Your task to perform on an android device: uninstall "Google Keep" Image 0: 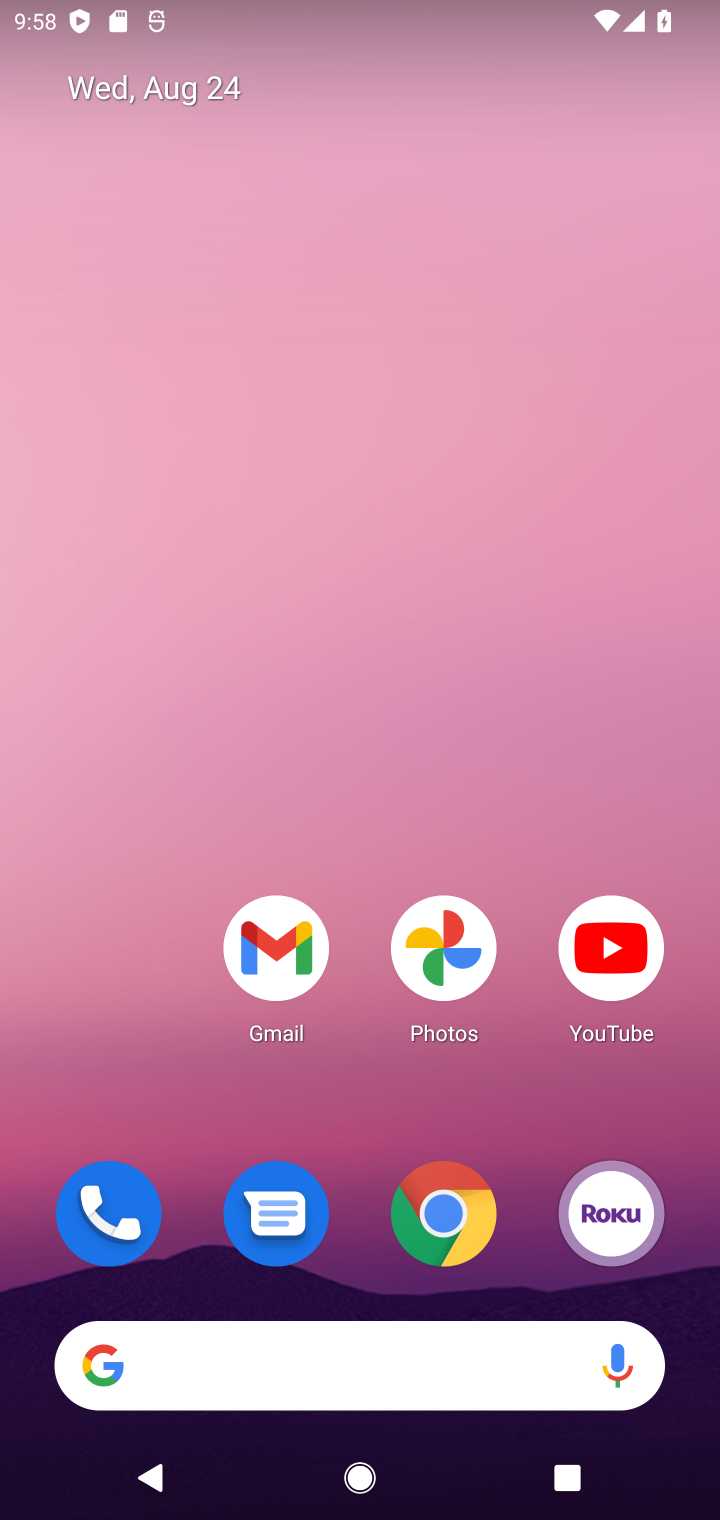
Step 0: drag from (372, 1097) to (316, 24)
Your task to perform on an android device: uninstall "Google Keep" Image 1: 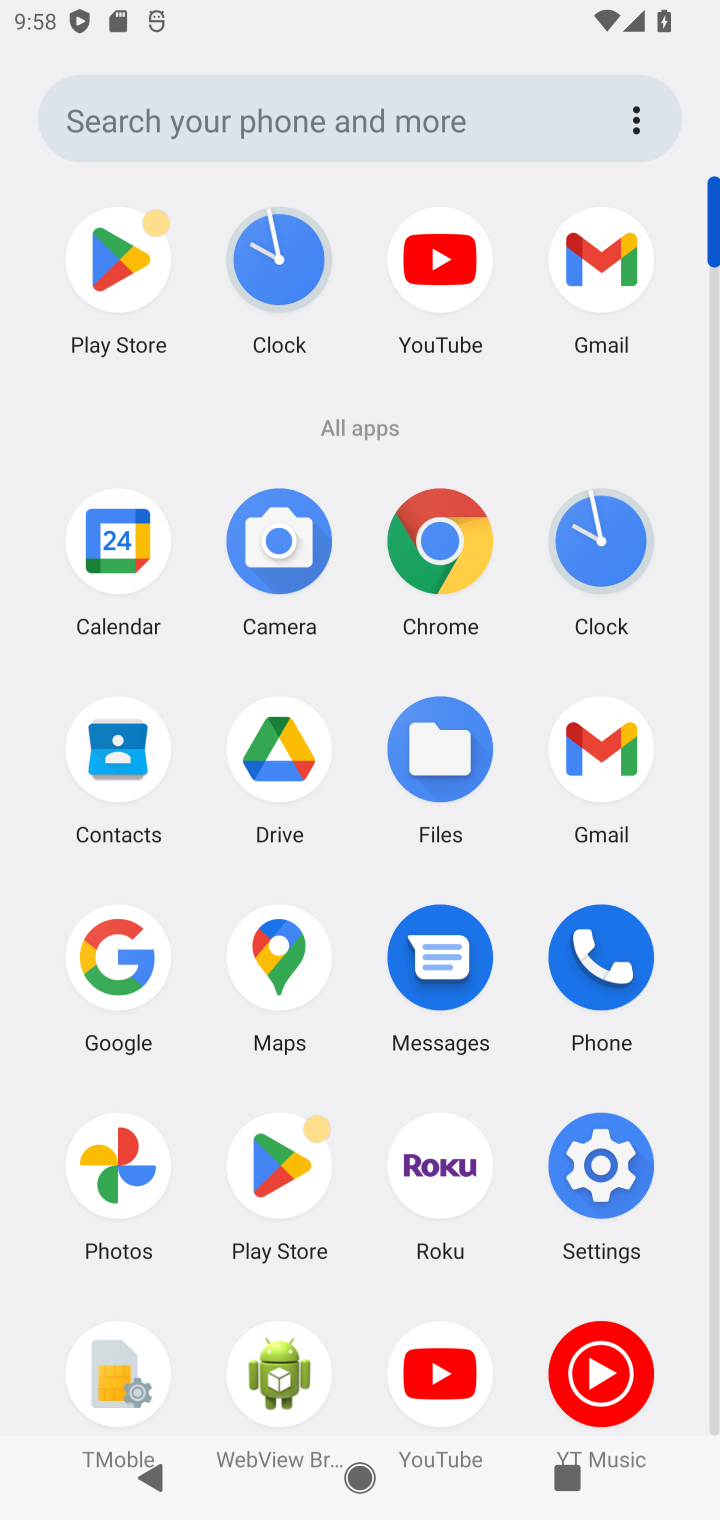
Step 1: click (109, 325)
Your task to perform on an android device: uninstall "Google Keep" Image 2: 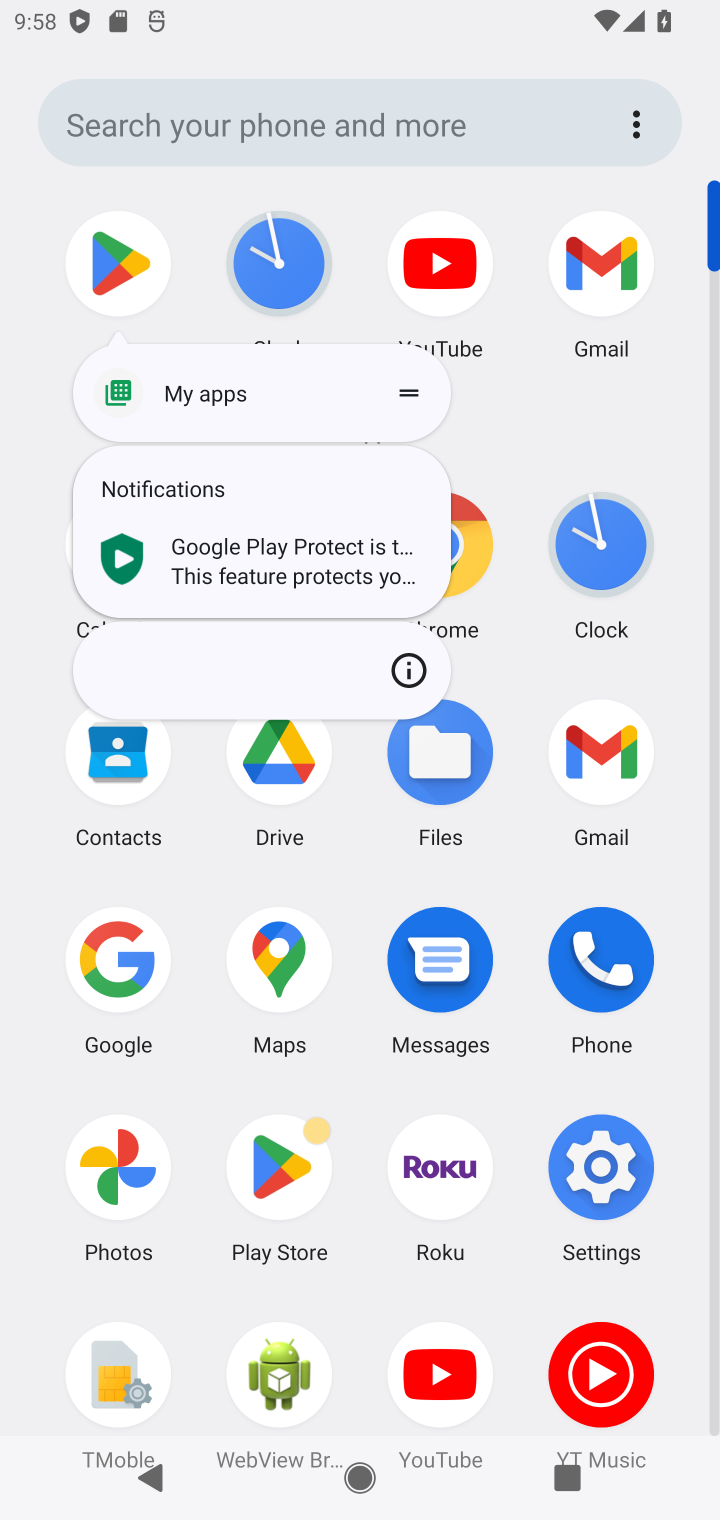
Step 2: click (129, 261)
Your task to perform on an android device: uninstall "Google Keep" Image 3: 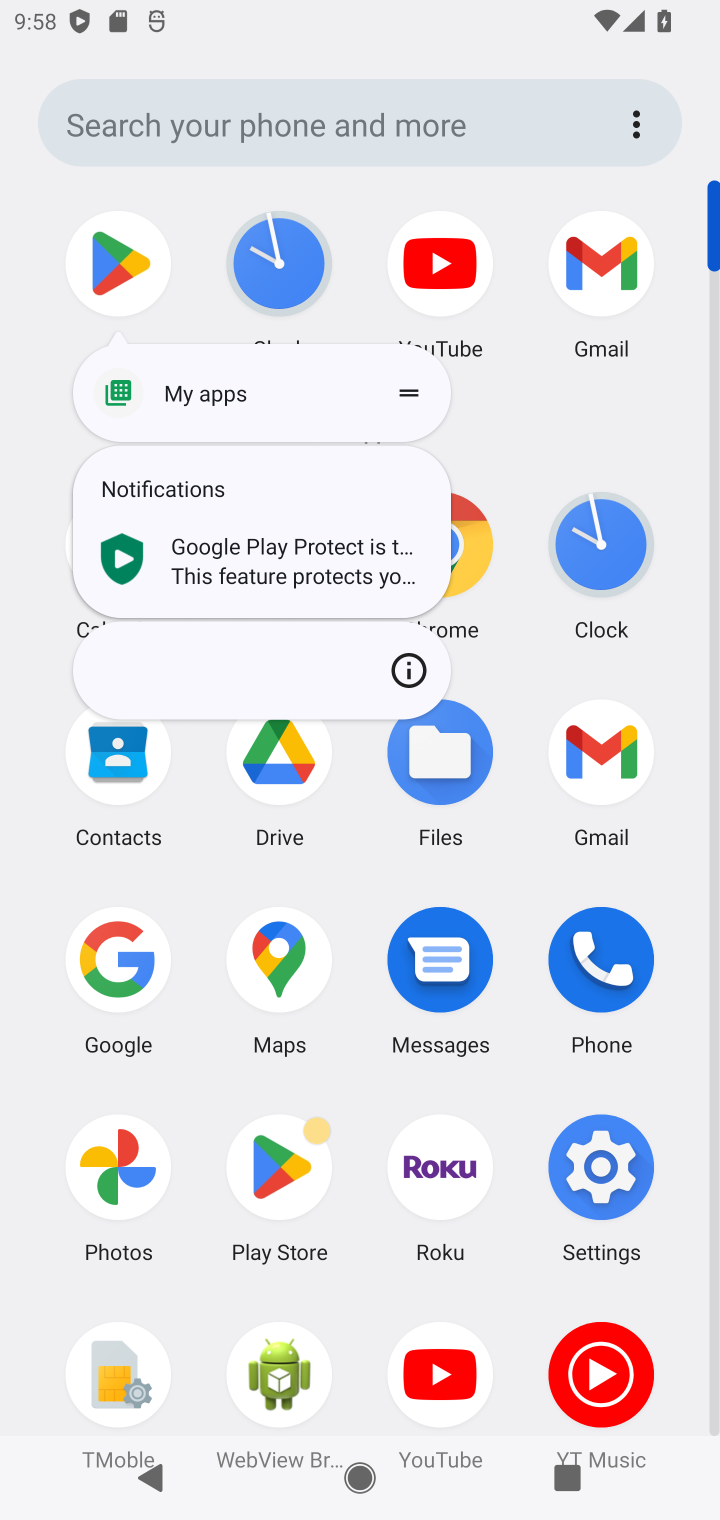
Step 3: click (129, 261)
Your task to perform on an android device: uninstall "Google Keep" Image 4: 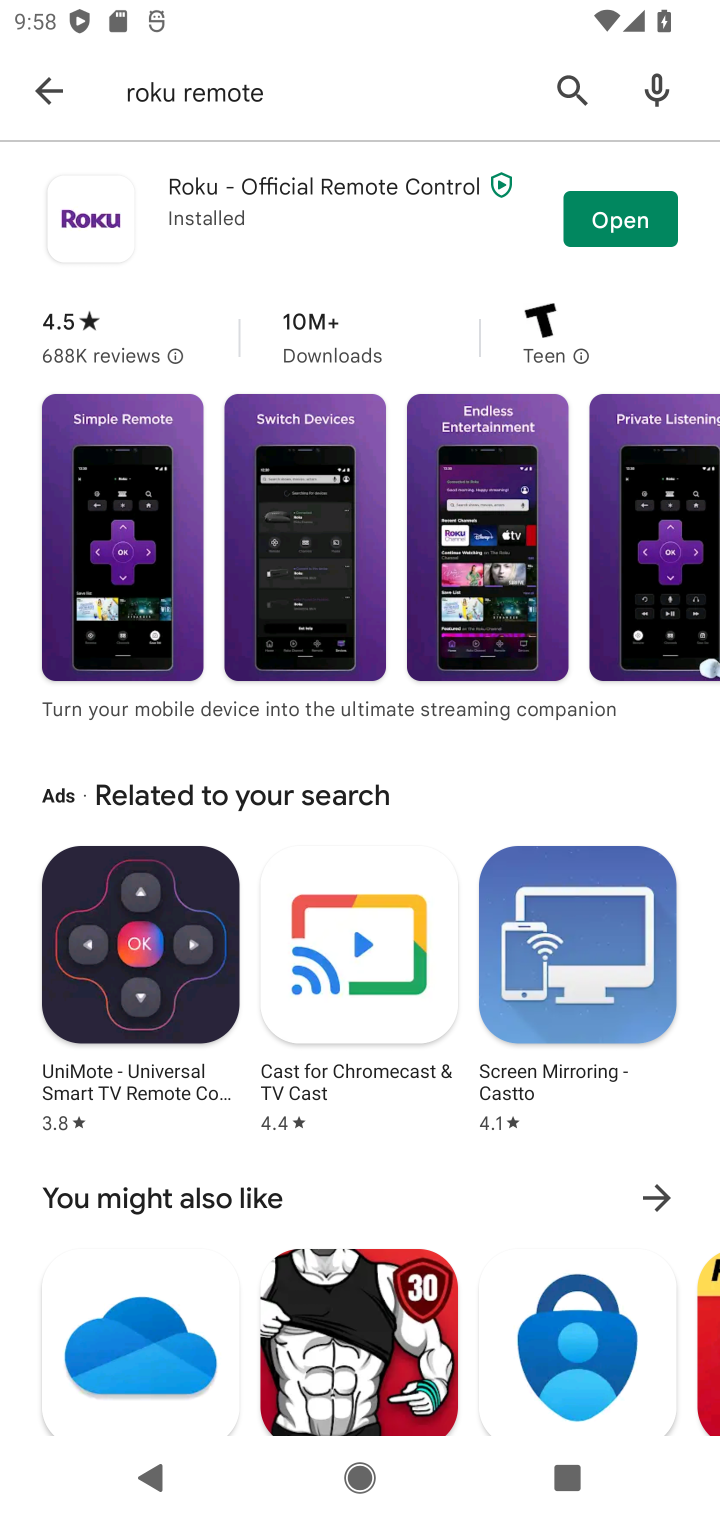
Step 4: click (286, 95)
Your task to perform on an android device: uninstall "Google Keep" Image 5: 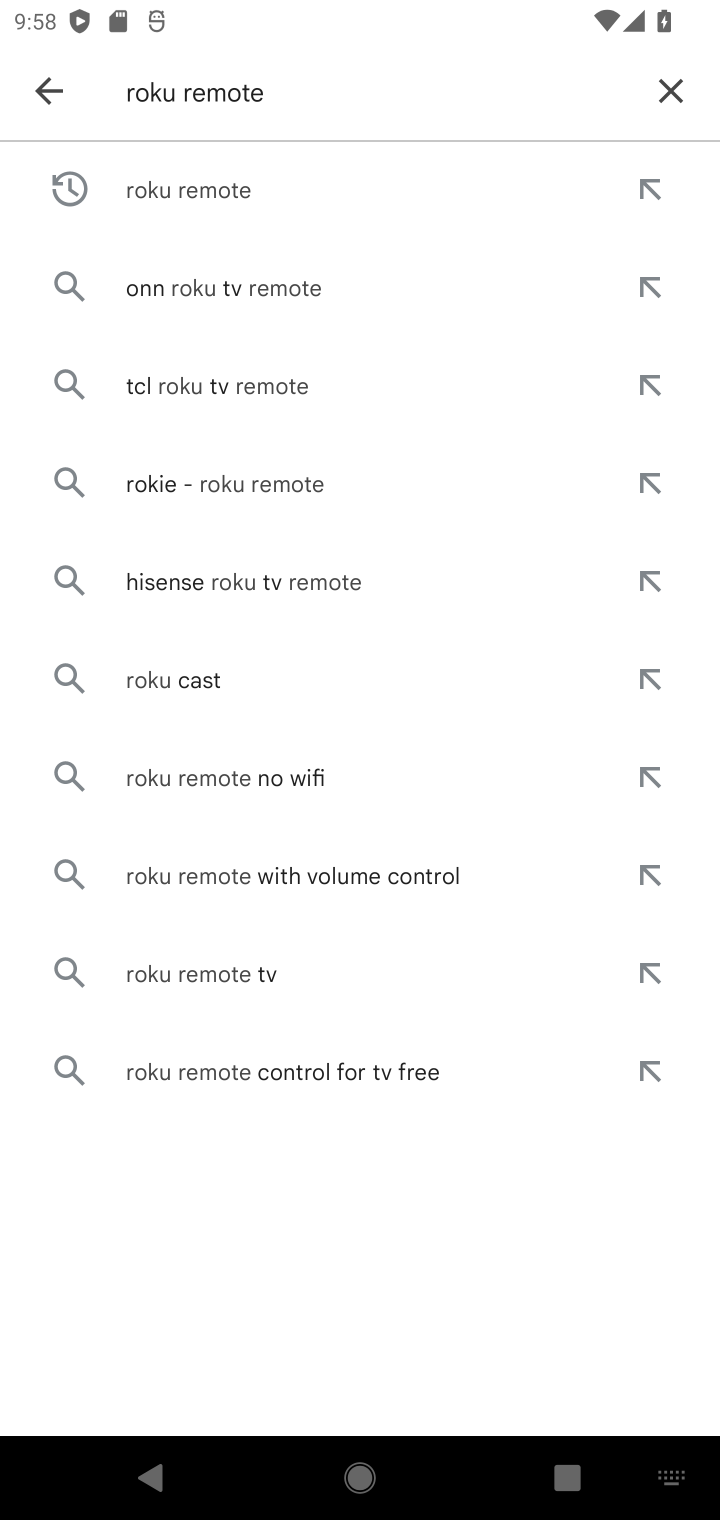
Step 5: click (663, 72)
Your task to perform on an android device: uninstall "Google Keep" Image 6: 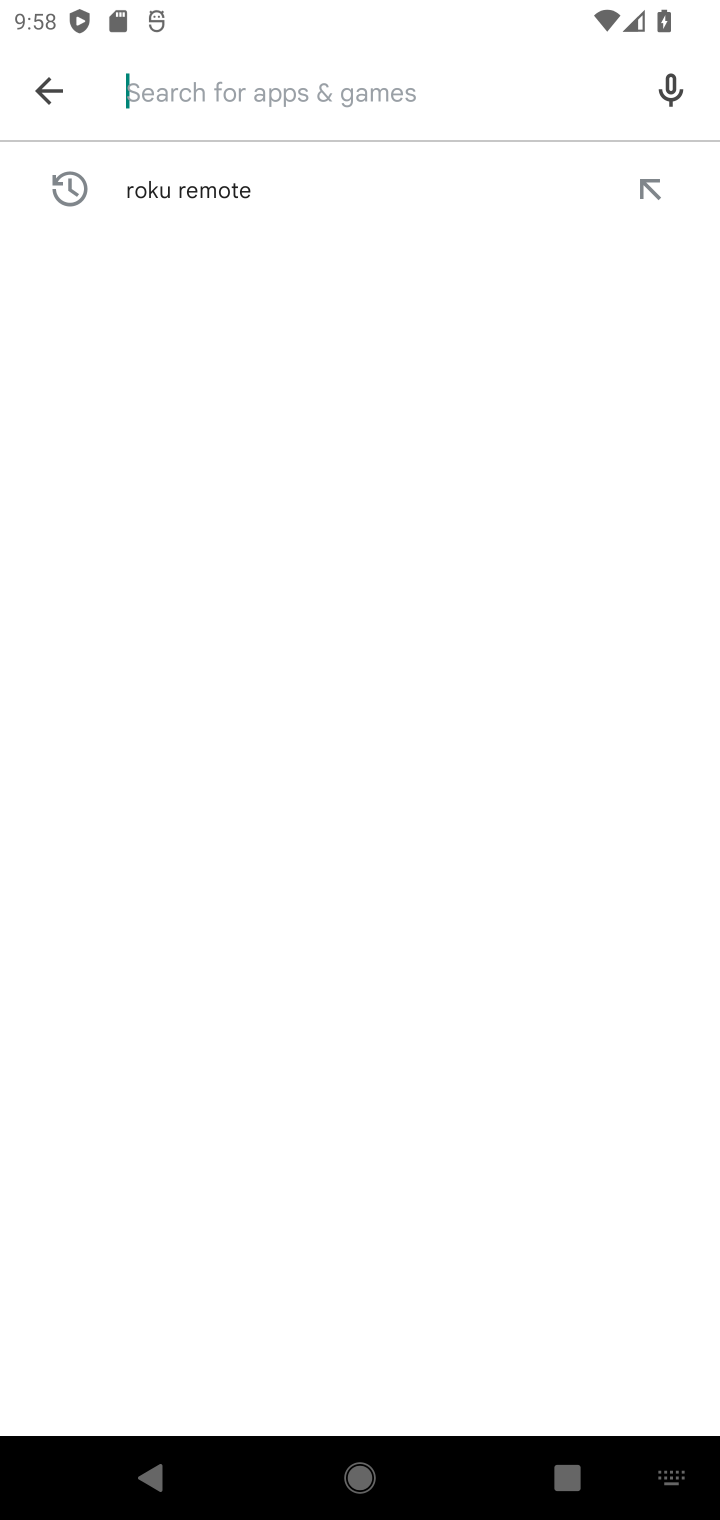
Step 6: type "google keep"
Your task to perform on an android device: uninstall "Google Keep" Image 7: 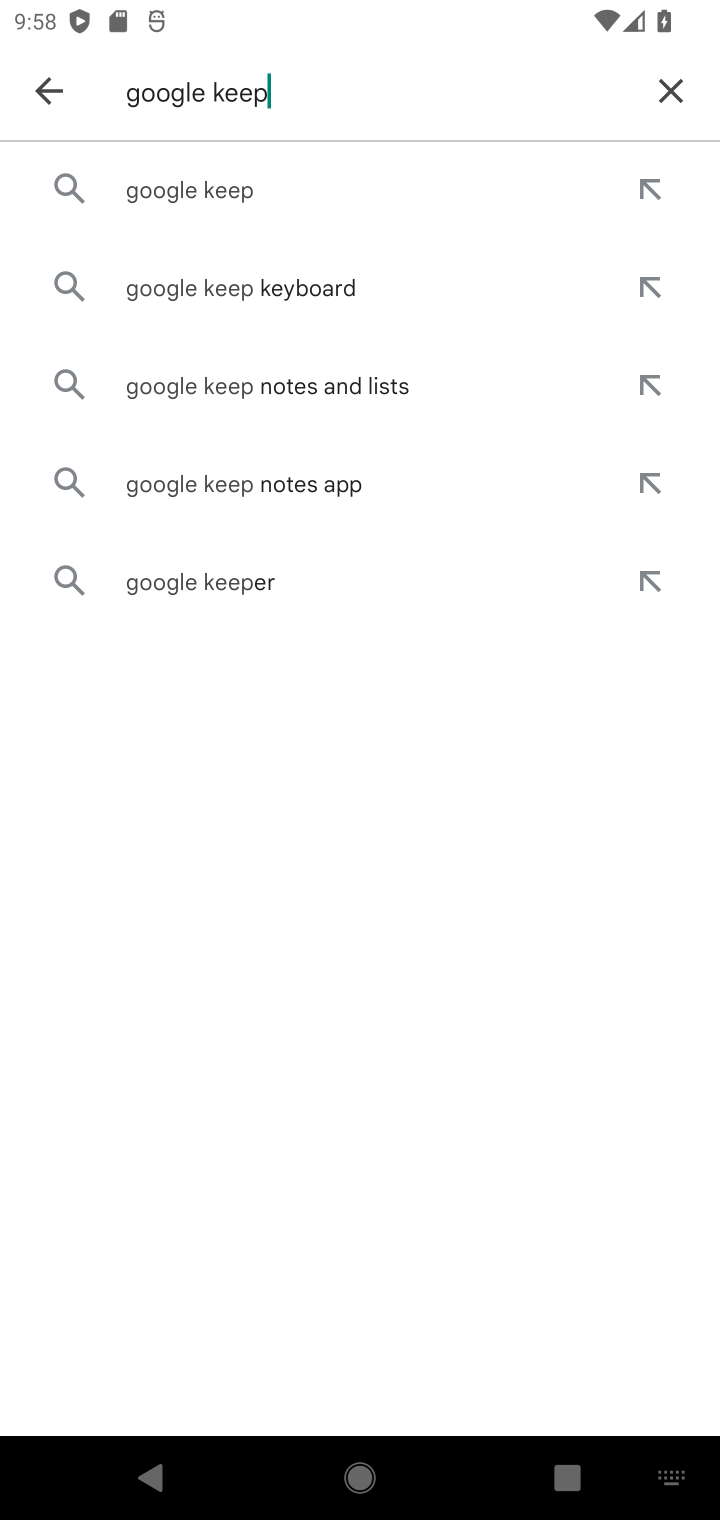
Step 7: click (199, 212)
Your task to perform on an android device: uninstall "Google Keep" Image 8: 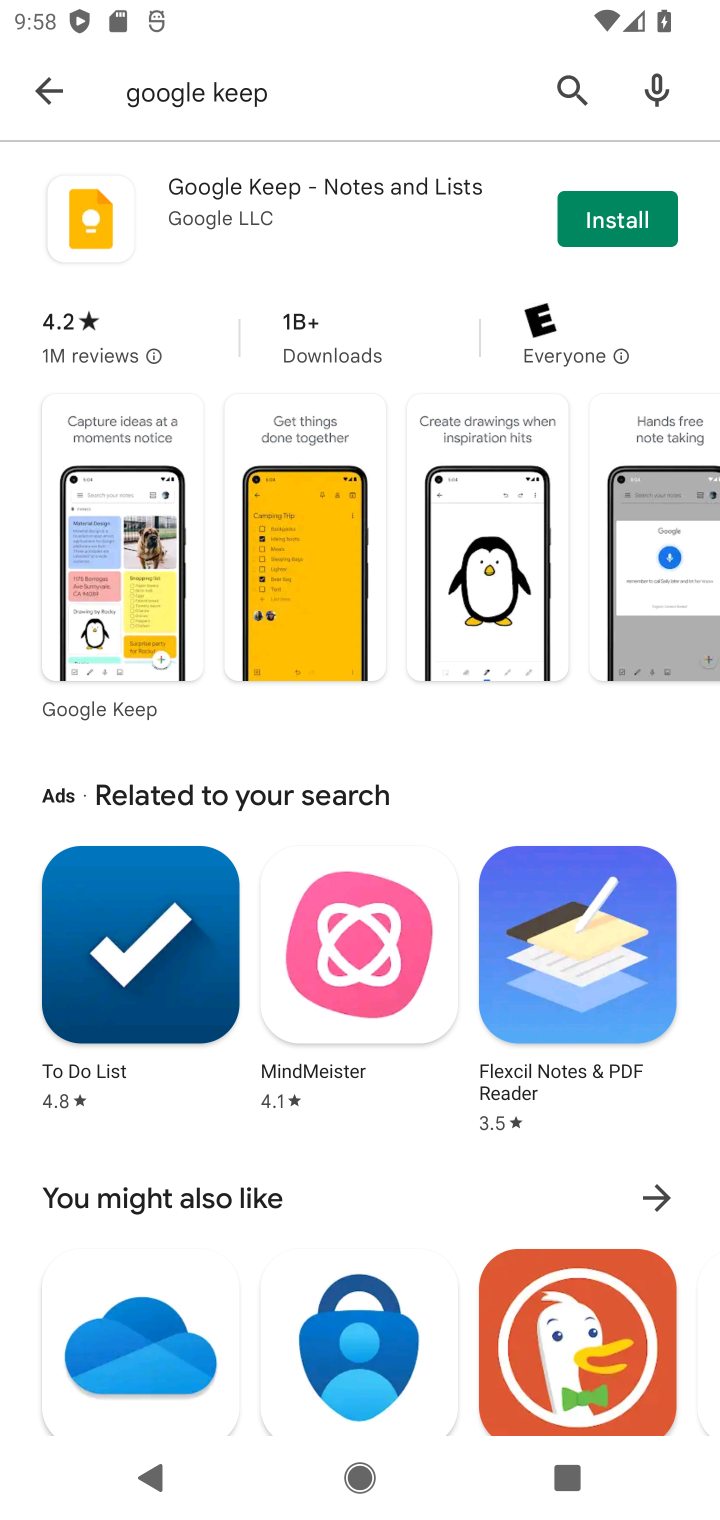
Step 8: task complete